Your task to perform on an android device: Go to sound settings Image 0: 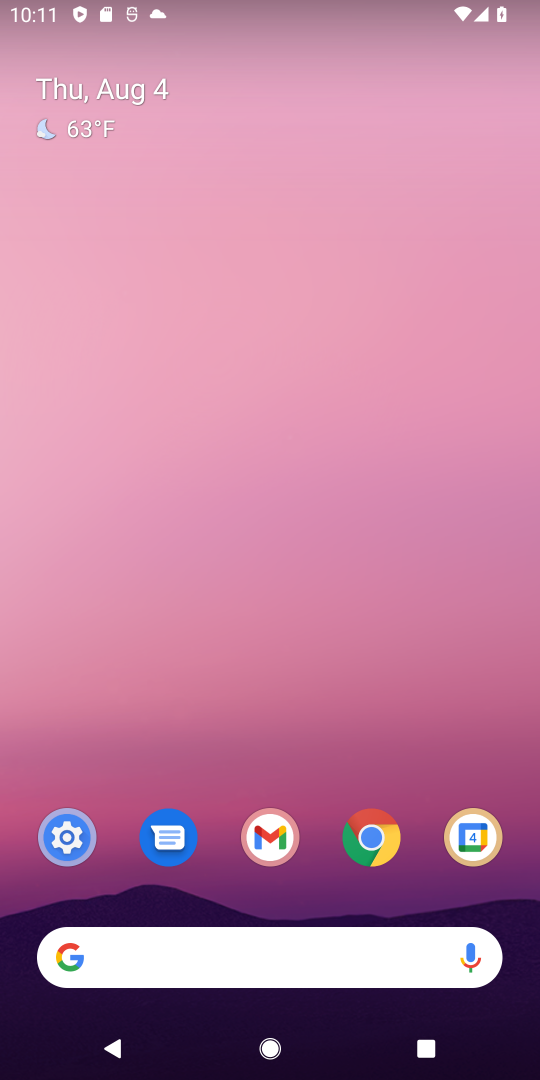
Step 0: press home button
Your task to perform on an android device: Go to sound settings Image 1: 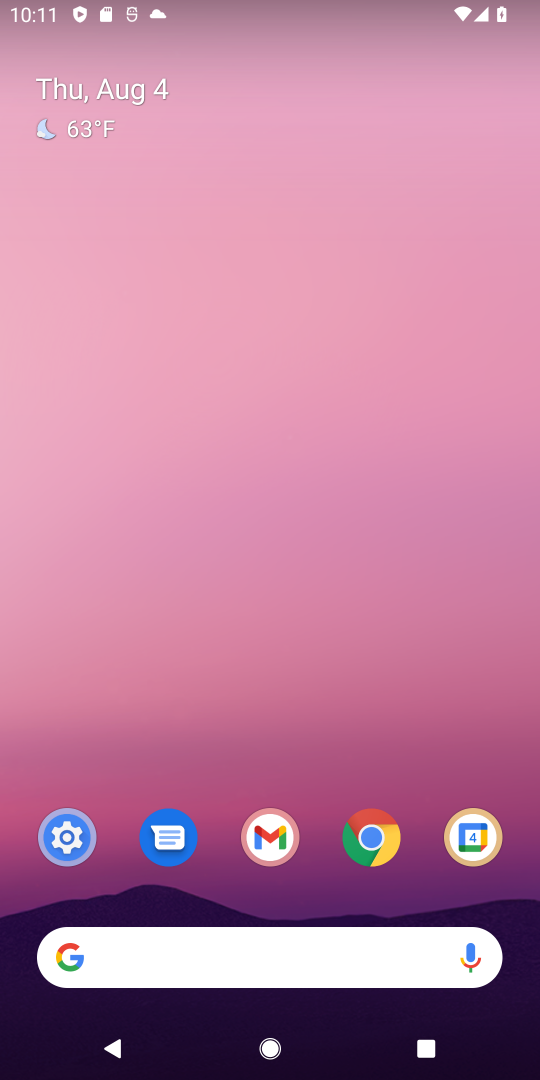
Step 1: drag from (316, 906) to (300, 106)
Your task to perform on an android device: Go to sound settings Image 2: 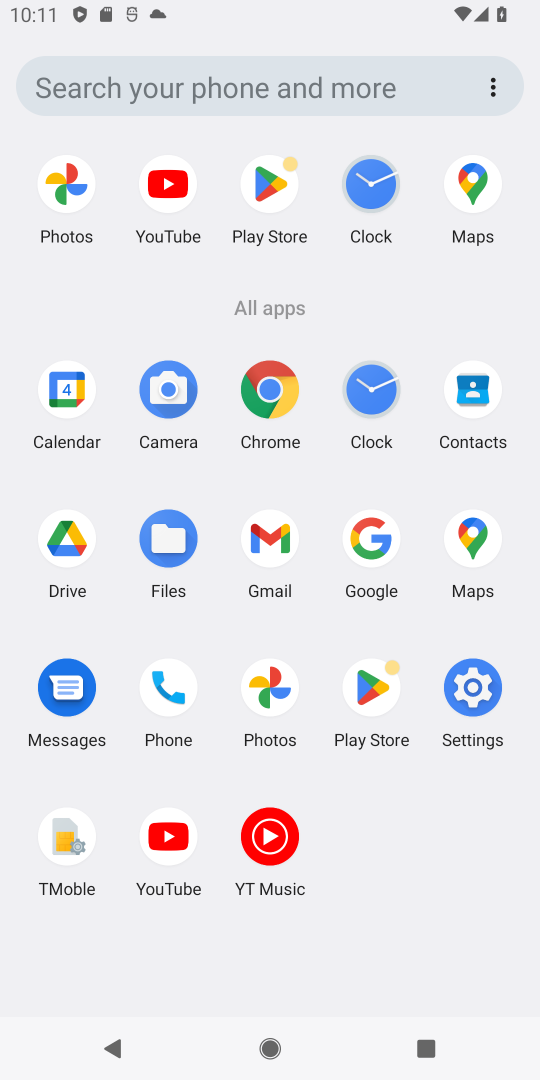
Step 2: click (467, 680)
Your task to perform on an android device: Go to sound settings Image 3: 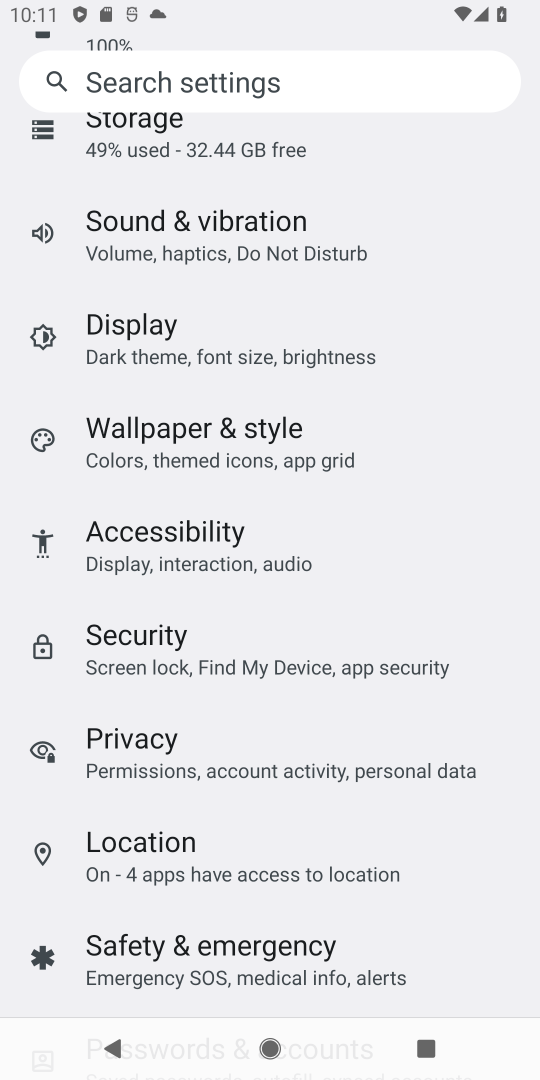
Step 3: drag from (174, 253) to (237, 980)
Your task to perform on an android device: Go to sound settings Image 4: 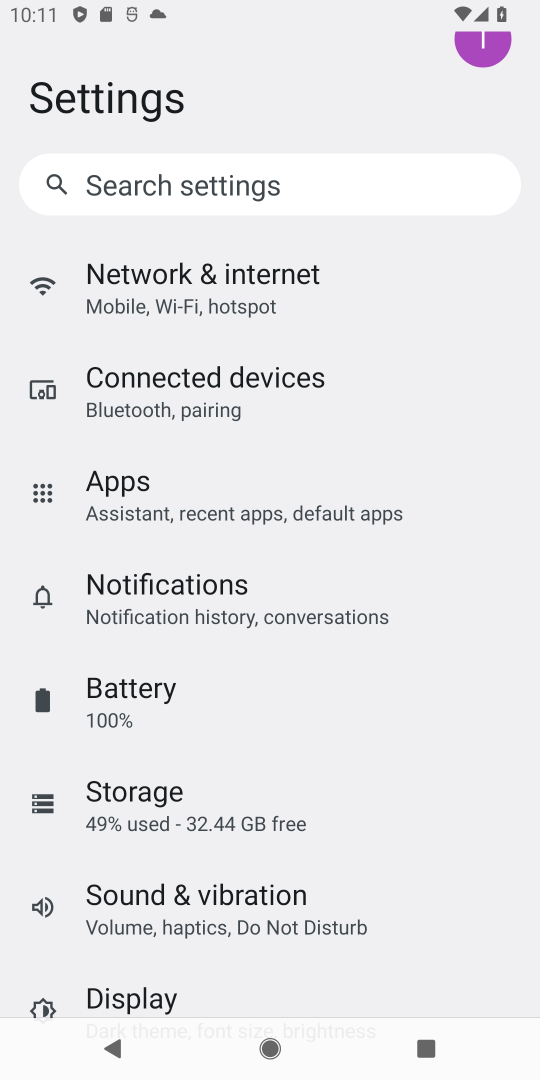
Step 4: click (217, 898)
Your task to perform on an android device: Go to sound settings Image 5: 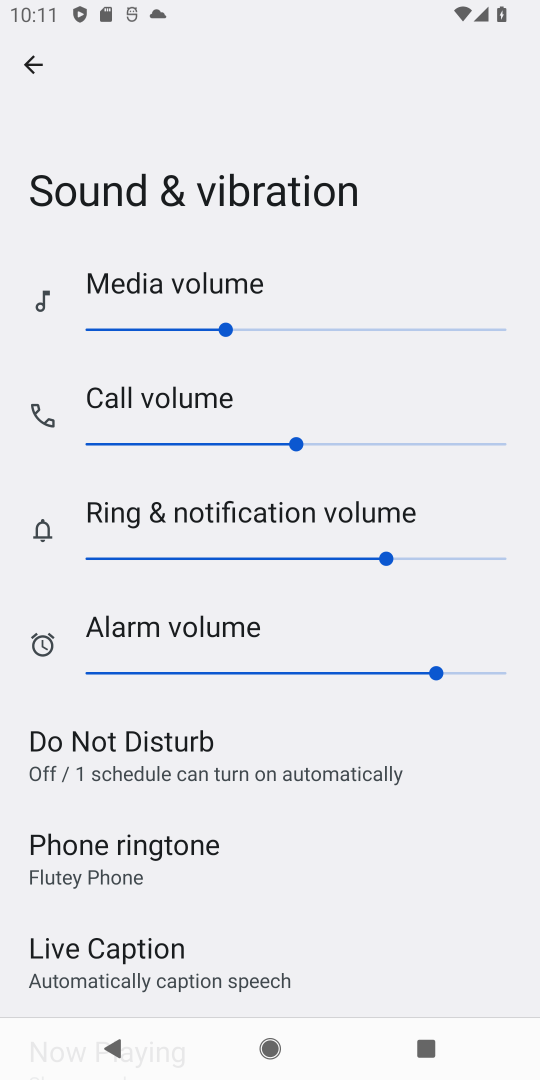
Step 5: task complete